Your task to perform on an android device: toggle wifi Image 0: 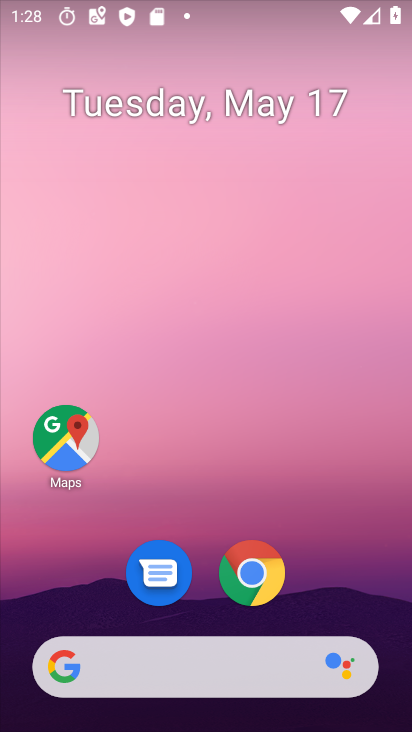
Step 0: drag from (230, 644) to (301, 217)
Your task to perform on an android device: toggle wifi Image 1: 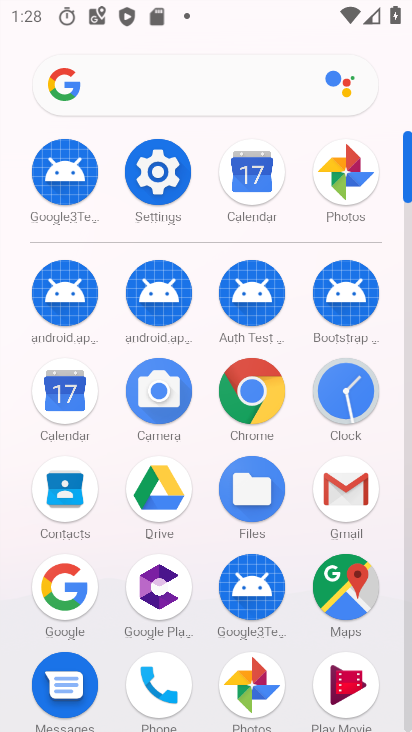
Step 1: click (149, 166)
Your task to perform on an android device: toggle wifi Image 2: 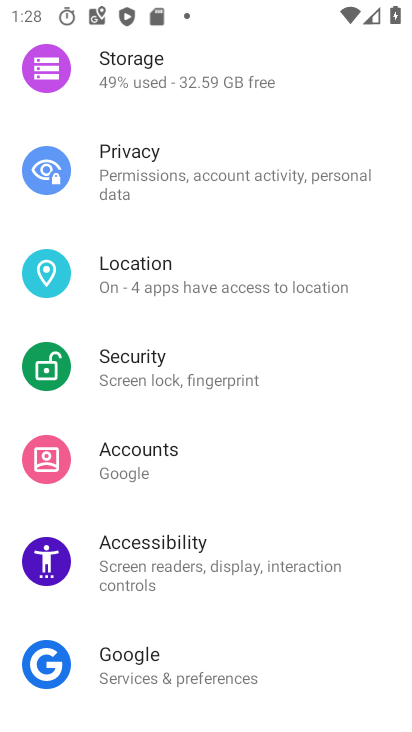
Step 2: drag from (281, 140) to (222, 726)
Your task to perform on an android device: toggle wifi Image 3: 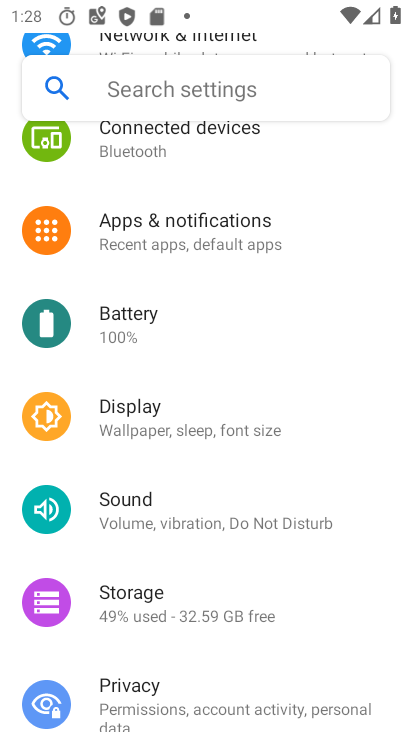
Step 3: drag from (301, 208) to (93, 725)
Your task to perform on an android device: toggle wifi Image 4: 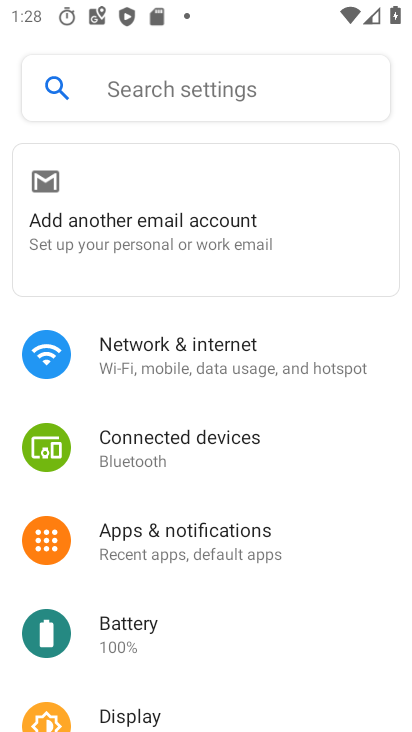
Step 4: click (197, 355)
Your task to perform on an android device: toggle wifi Image 5: 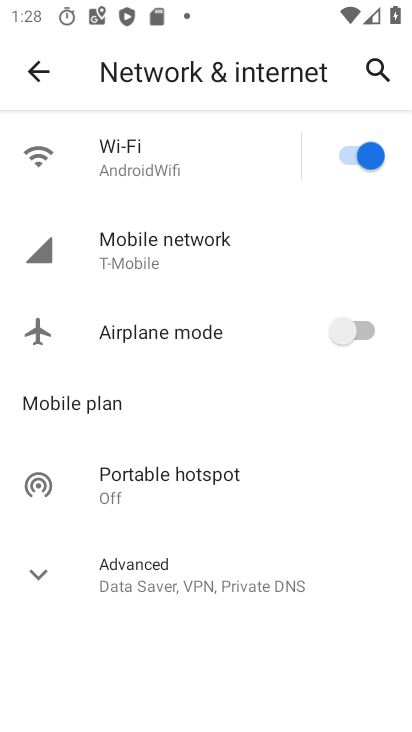
Step 5: click (379, 161)
Your task to perform on an android device: toggle wifi Image 6: 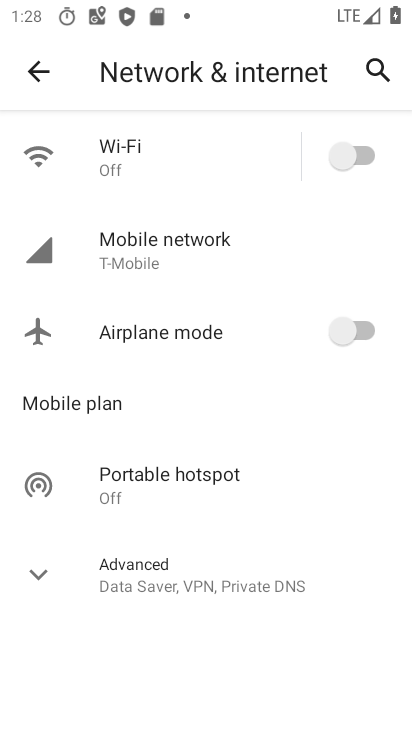
Step 6: task complete